Your task to perform on an android device: uninstall "TextNow: Call + Text Unlimited" Image 0: 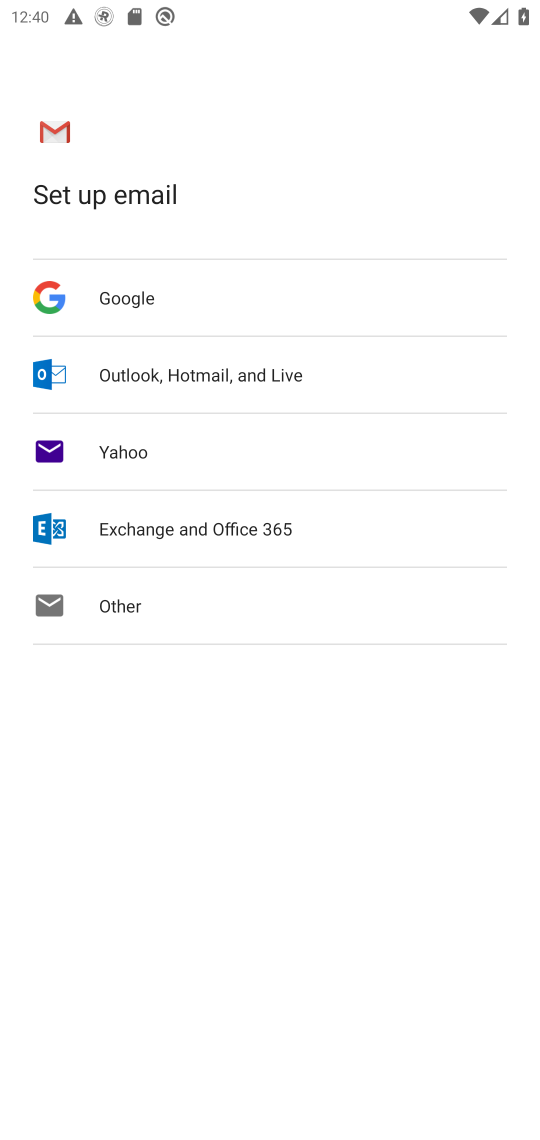
Step 0: press home button
Your task to perform on an android device: uninstall "TextNow: Call + Text Unlimited" Image 1: 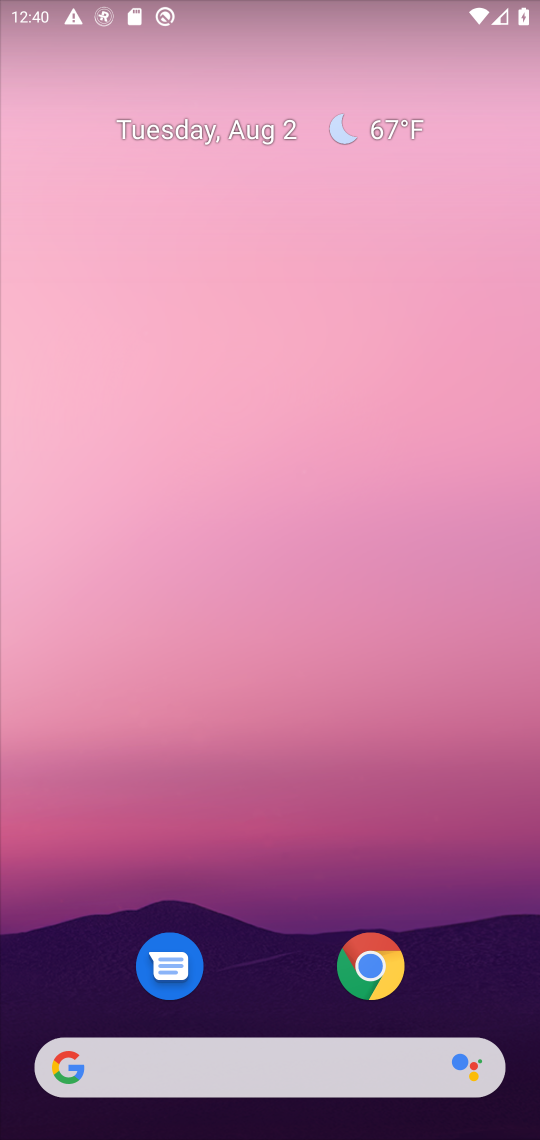
Step 1: drag from (264, 999) to (296, 75)
Your task to perform on an android device: uninstall "TextNow: Call + Text Unlimited" Image 2: 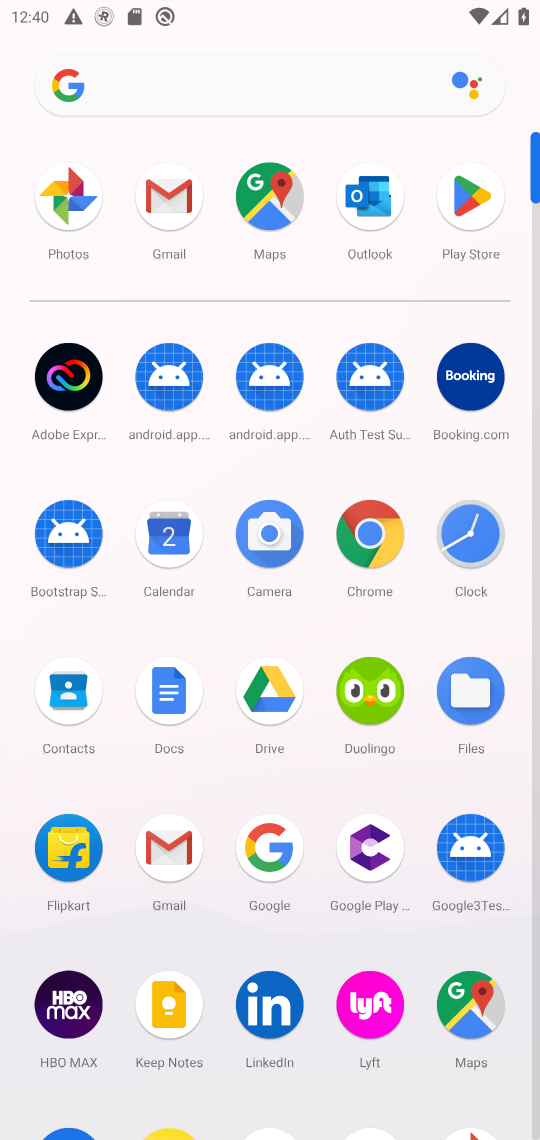
Step 2: click (472, 198)
Your task to perform on an android device: uninstall "TextNow: Call + Text Unlimited" Image 3: 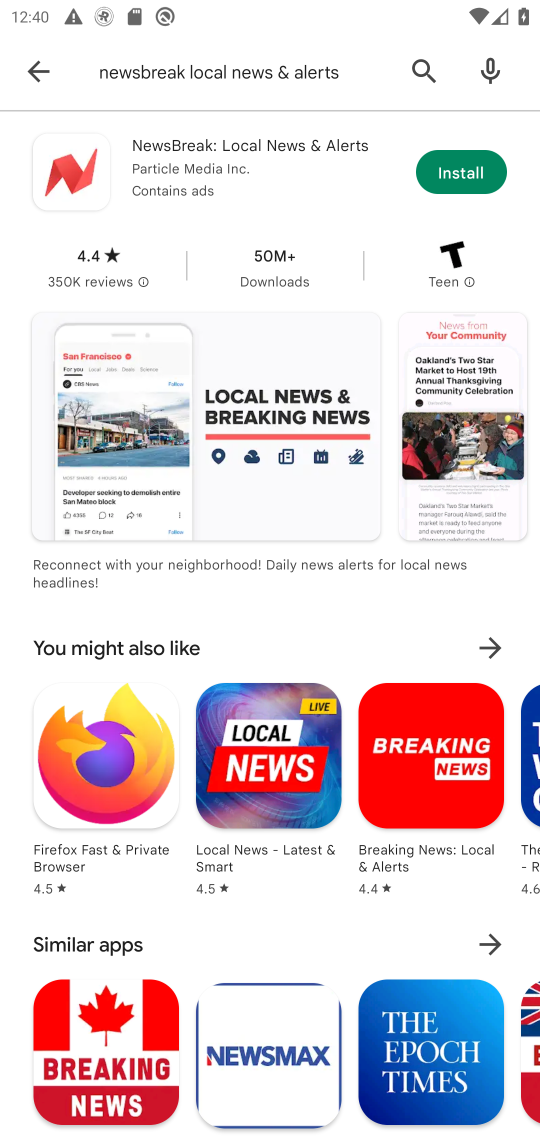
Step 3: click (421, 69)
Your task to perform on an android device: uninstall "TextNow: Call + Text Unlimited" Image 4: 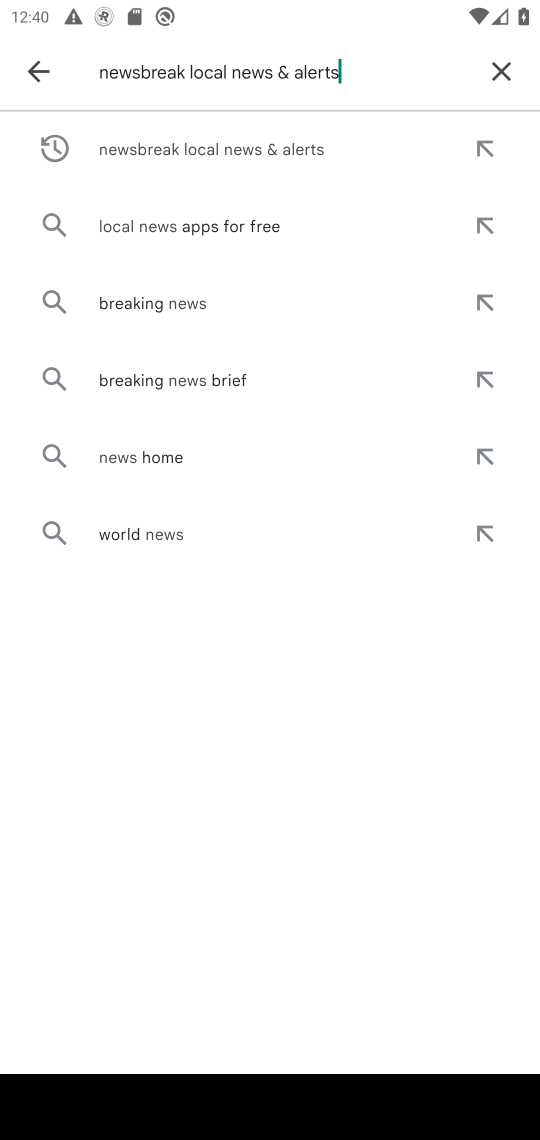
Step 4: click (374, 81)
Your task to perform on an android device: uninstall "TextNow: Call + Text Unlimited" Image 5: 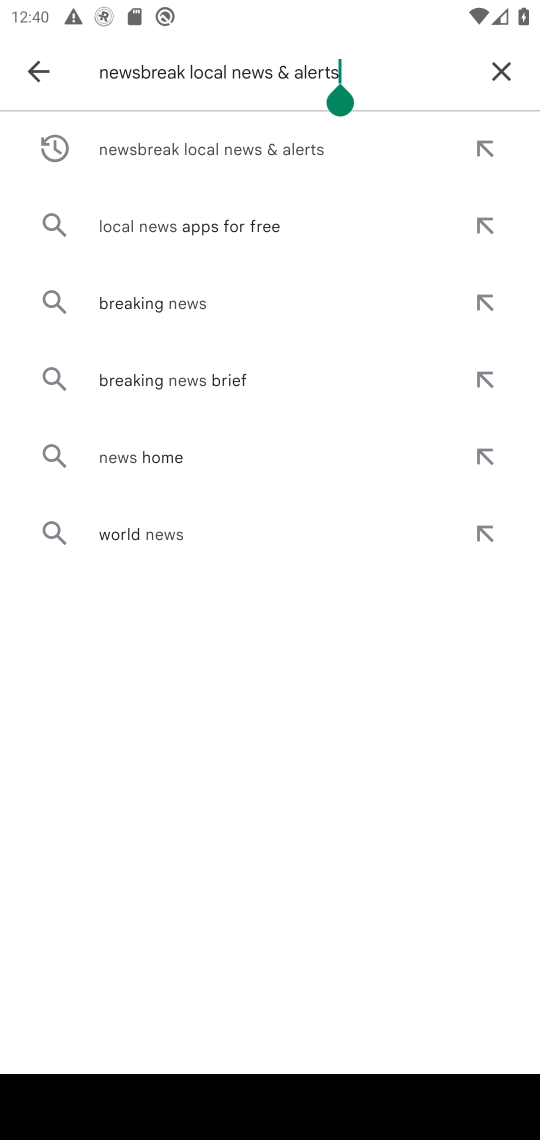
Step 5: click (495, 76)
Your task to perform on an android device: uninstall "TextNow: Call + Text Unlimited" Image 6: 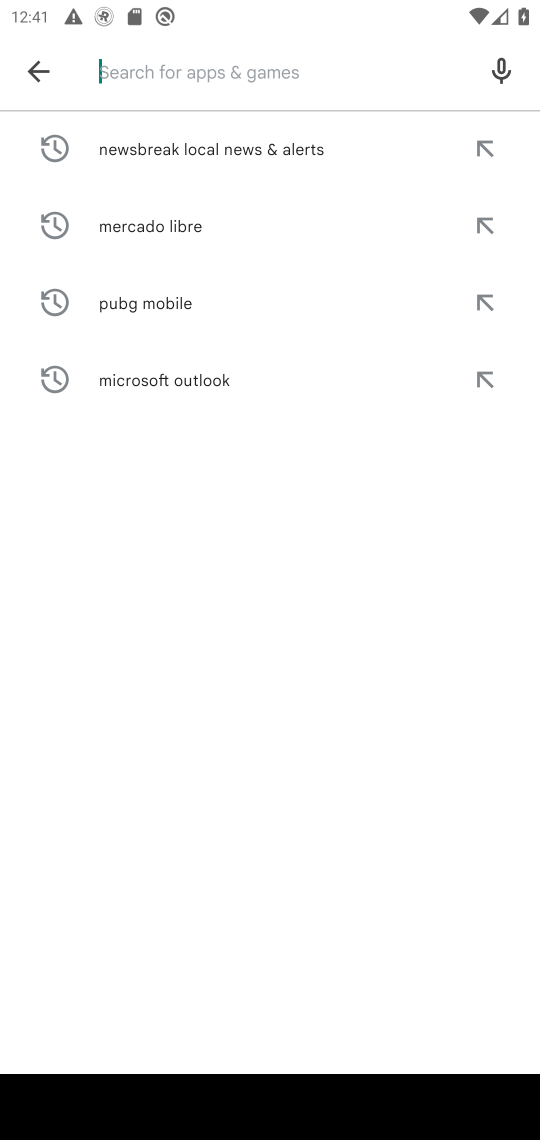
Step 6: type "TextNow: Call + Text Unlimited"
Your task to perform on an android device: uninstall "TextNow: Call + Text Unlimited" Image 7: 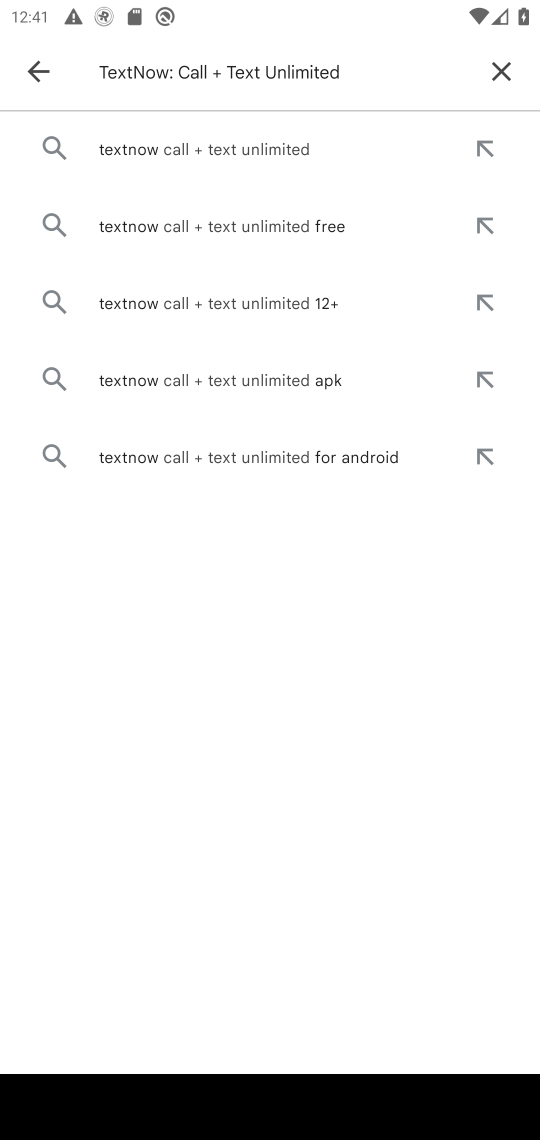
Step 7: click (218, 153)
Your task to perform on an android device: uninstall "TextNow: Call + Text Unlimited" Image 8: 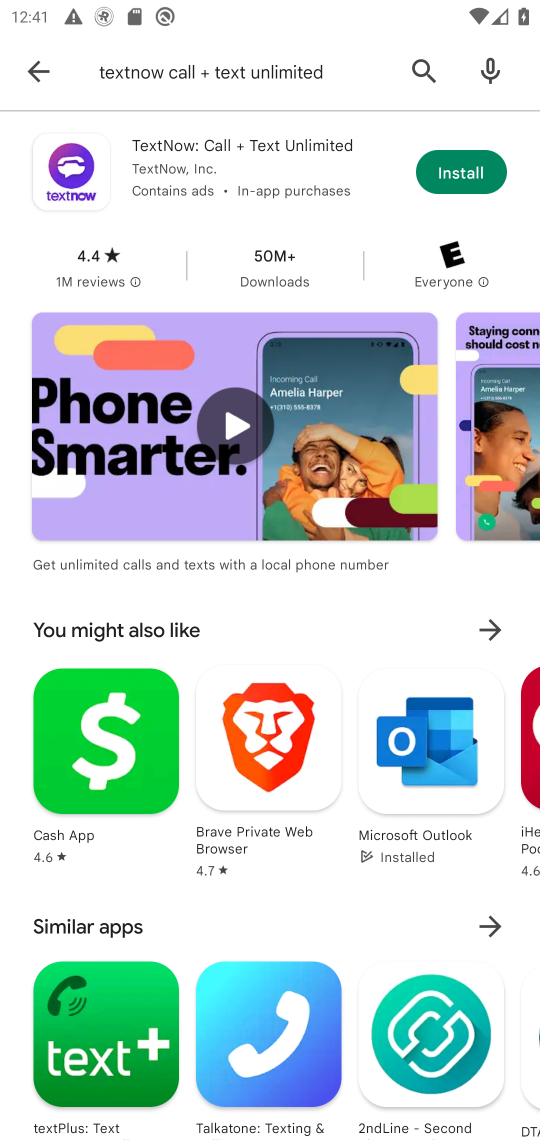
Step 8: task complete